Your task to perform on an android device: Go to privacy settings Image 0: 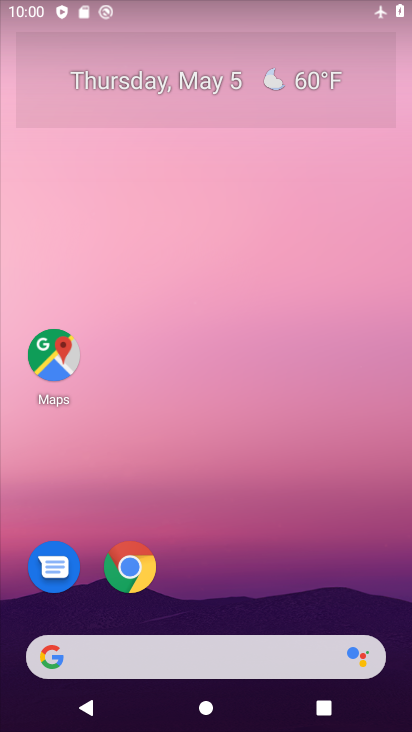
Step 0: click (142, 567)
Your task to perform on an android device: Go to privacy settings Image 1: 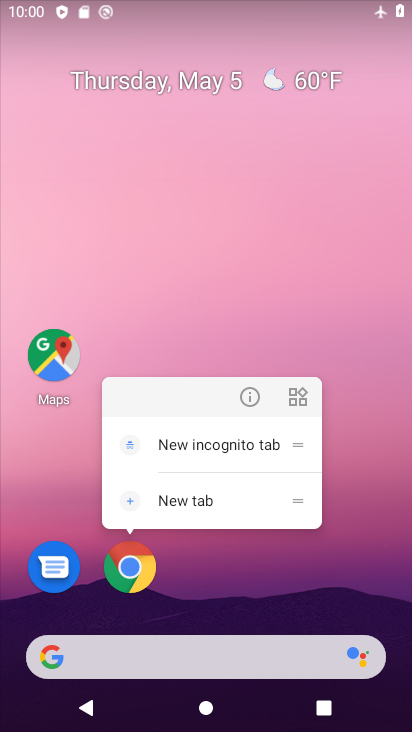
Step 1: click (138, 581)
Your task to perform on an android device: Go to privacy settings Image 2: 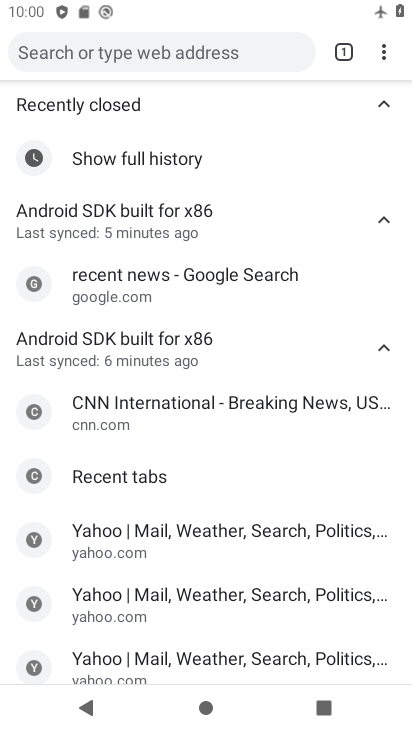
Step 2: click (376, 51)
Your task to perform on an android device: Go to privacy settings Image 3: 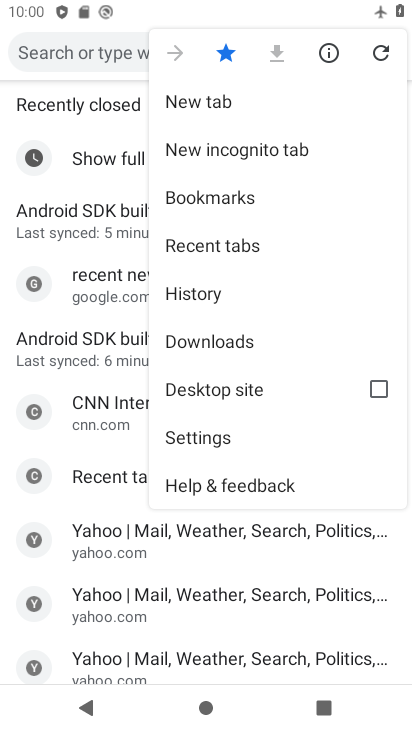
Step 3: click (200, 430)
Your task to perform on an android device: Go to privacy settings Image 4: 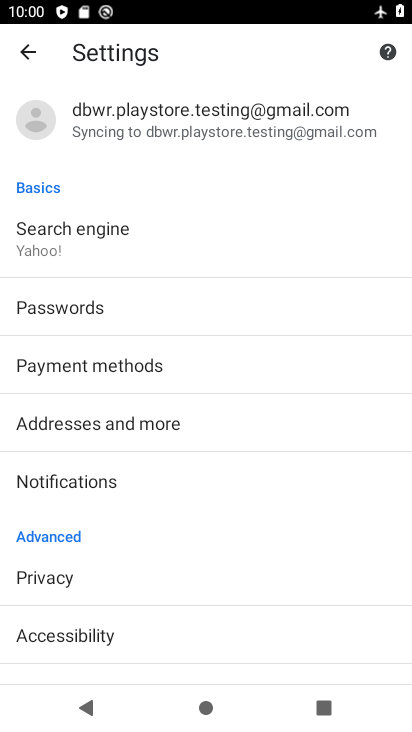
Step 4: click (70, 576)
Your task to perform on an android device: Go to privacy settings Image 5: 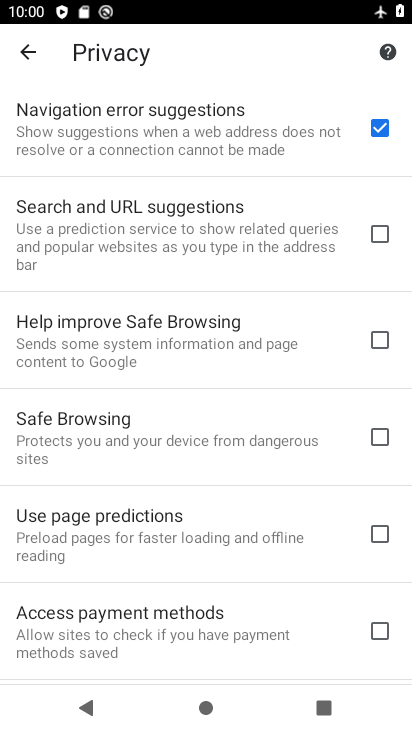
Step 5: task complete